Your task to perform on an android device: Set the phone to "Do not disturb". Image 0: 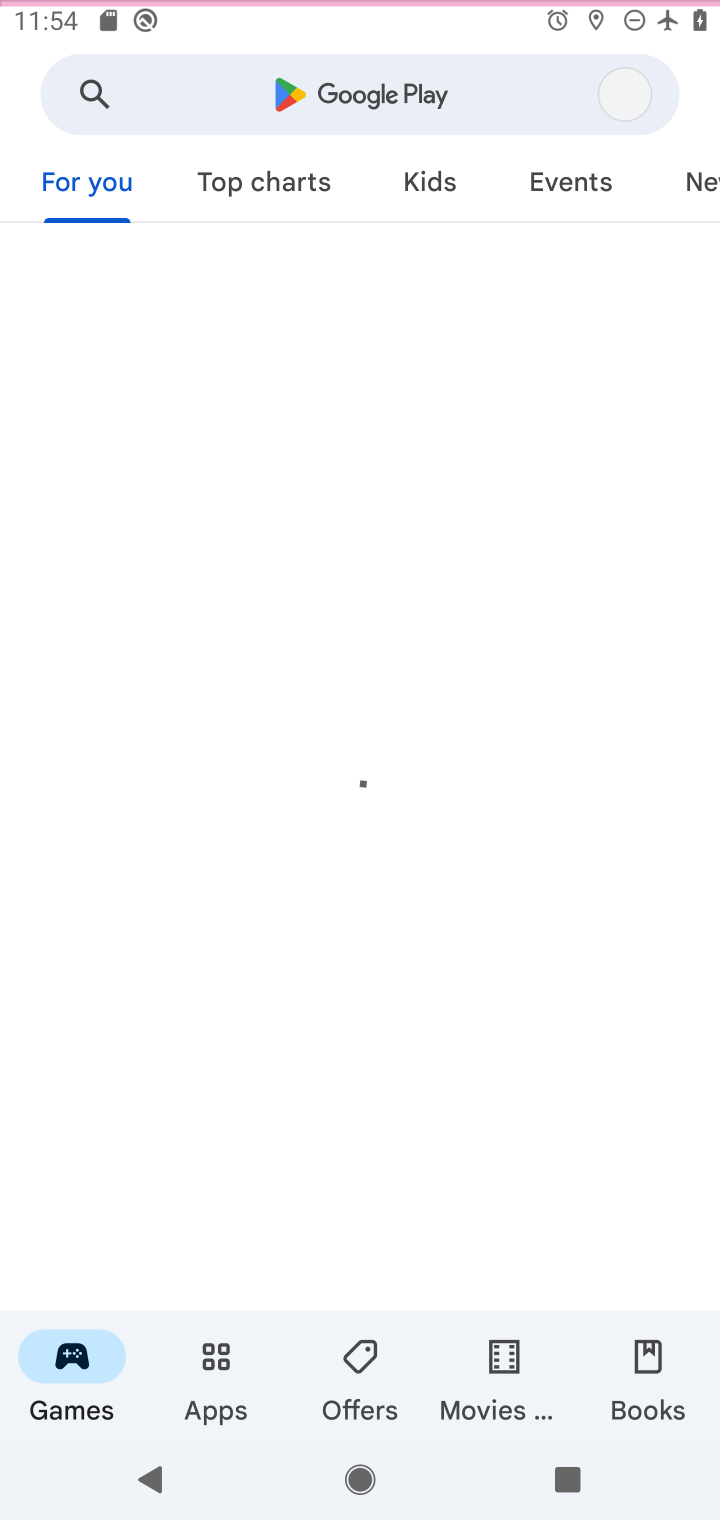
Step 0: press home button
Your task to perform on an android device: Set the phone to "Do not disturb". Image 1: 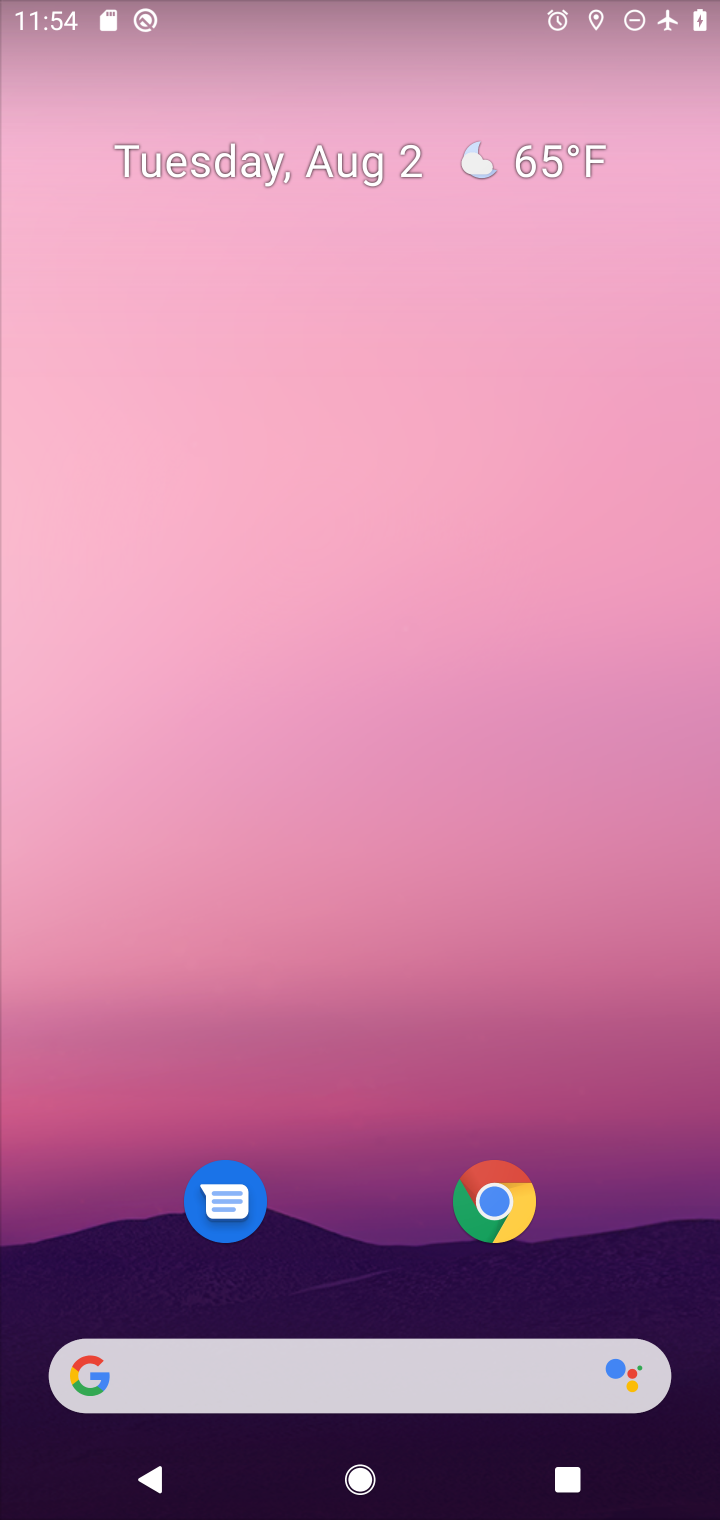
Step 1: task complete